Your task to perform on an android device: open chrome and create a bookmark for the current page Image 0: 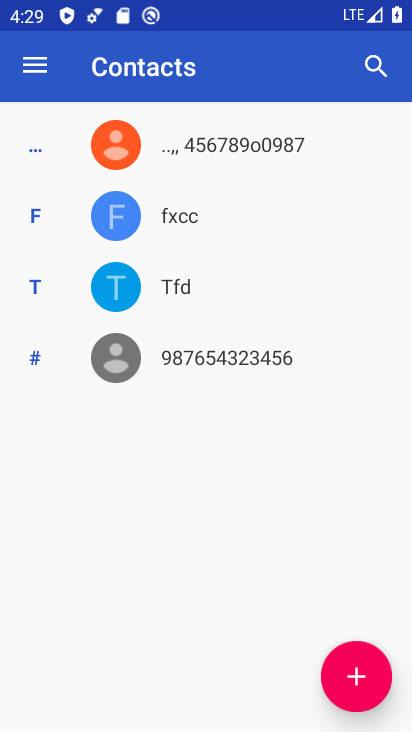
Step 0: press home button
Your task to perform on an android device: open chrome and create a bookmark for the current page Image 1: 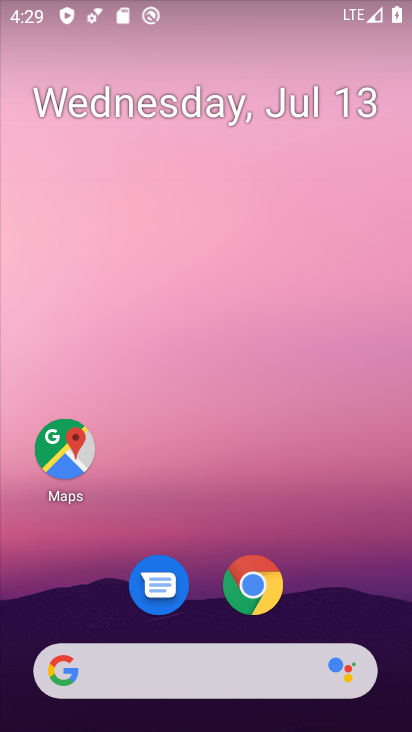
Step 1: click (271, 586)
Your task to perform on an android device: open chrome and create a bookmark for the current page Image 2: 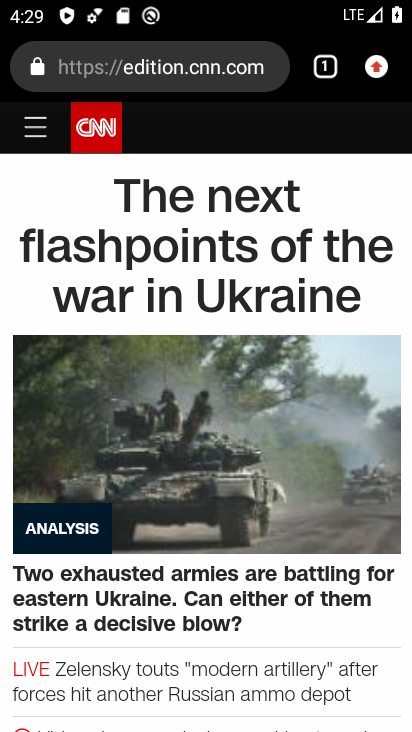
Step 2: click (378, 68)
Your task to perform on an android device: open chrome and create a bookmark for the current page Image 3: 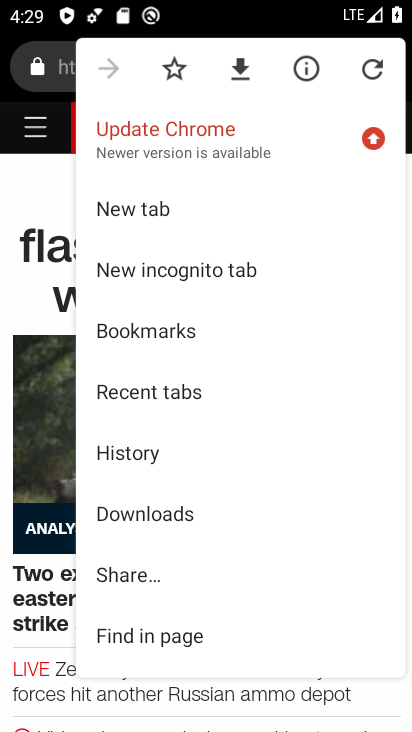
Step 3: click (174, 65)
Your task to perform on an android device: open chrome and create a bookmark for the current page Image 4: 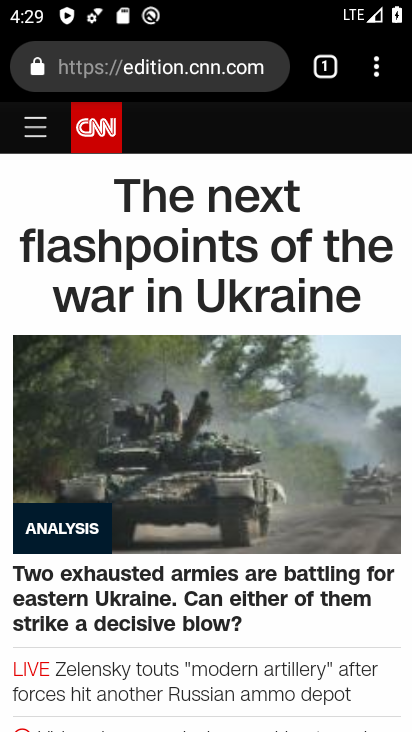
Step 4: task complete